Your task to perform on an android device: turn on location history Image 0: 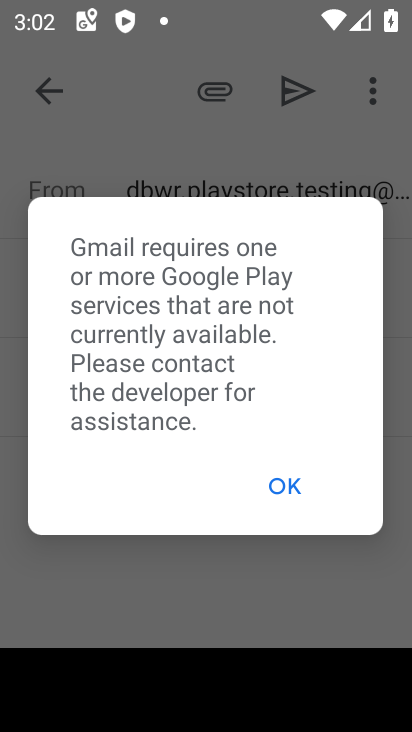
Step 0: click (289, 478)
Your task to perform on an android device: turn on location history Image 1: 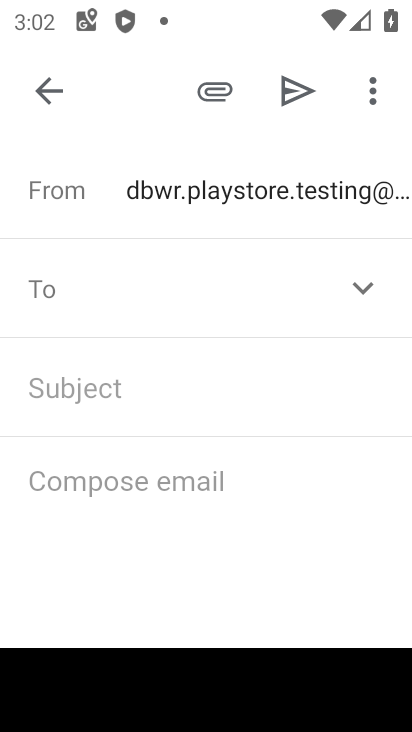
Step 1: press back button
Your task to perform on an android device: turn on location history Image 2: 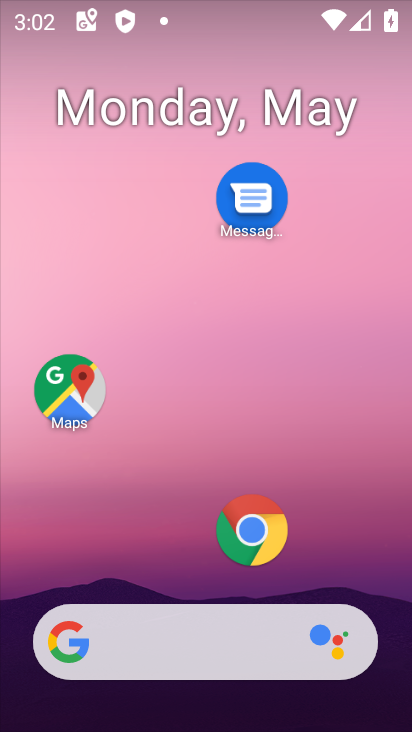
Step 2: drag from (142, 517) to (247, 51)
Your task to perform on an android device: turn on location history Image 3: 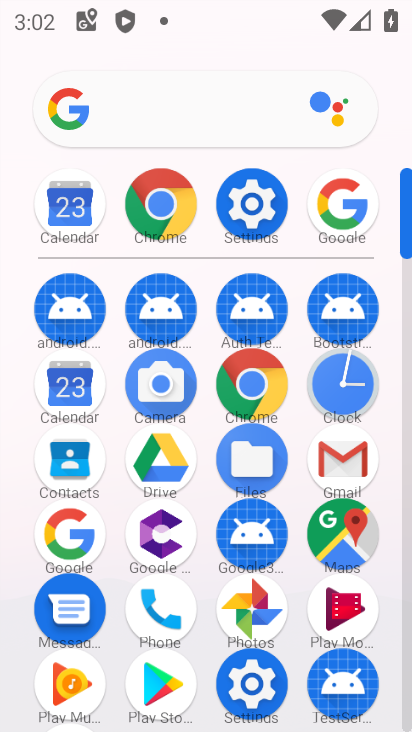
Step 3: click (274, 202)
Your task to perform on an android device: turn on location history Image 4: 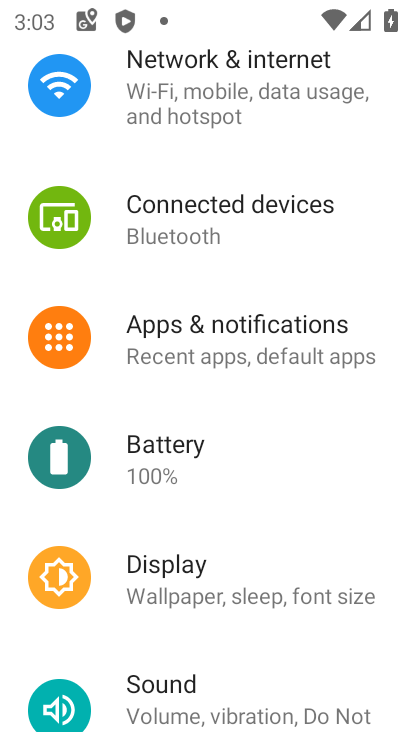
Step 4: drag from (196, 625) to (267, 192)
Your task to perform on an android device: turn on location history Image 5: 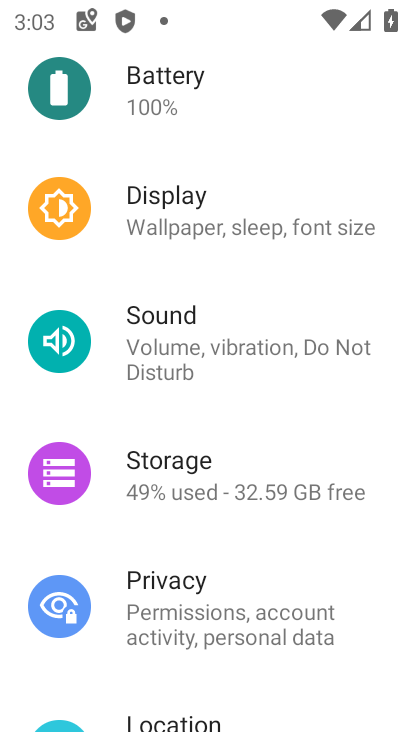
Step 5: click (152, 698)
Your task to perform on an android device: turn on location history Image 6: 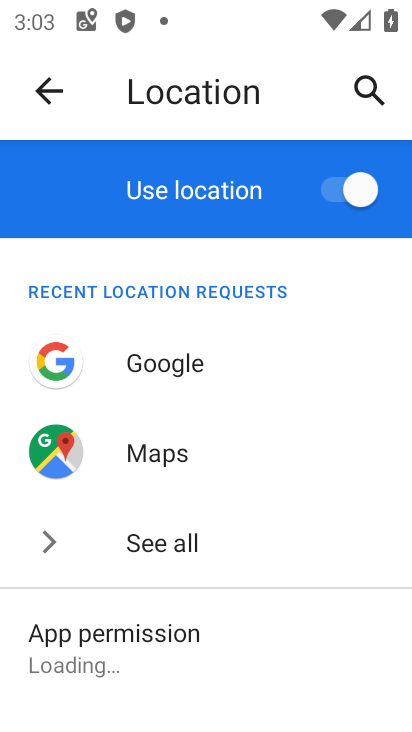
Step 6: drag from (125, 673) to (214, 220)
Your task to perform on an android device: turn on location history Image 7: 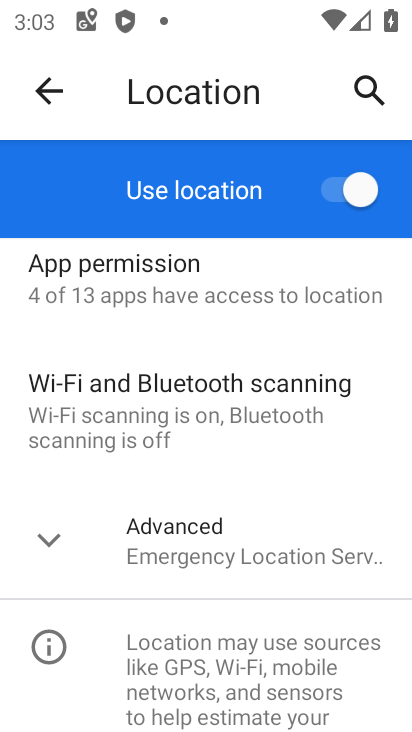
Step 7: click (206, 541)
Your task to perform on an android device: turn on location history Image 8: 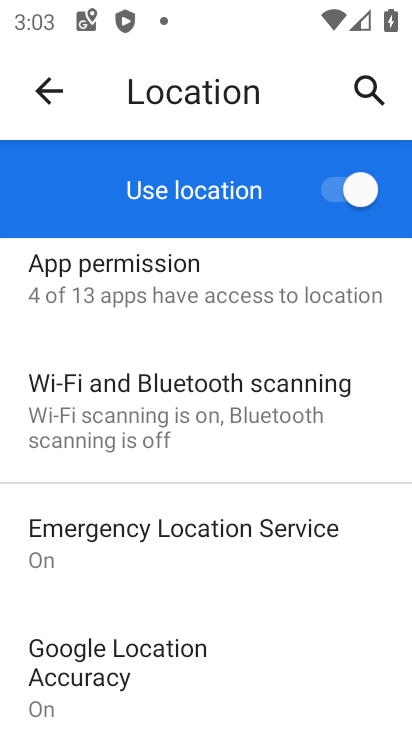
Step 8: drag from (168, 572) to (219, 214)
Your task to perform on an android device: turn on location history Image 9: 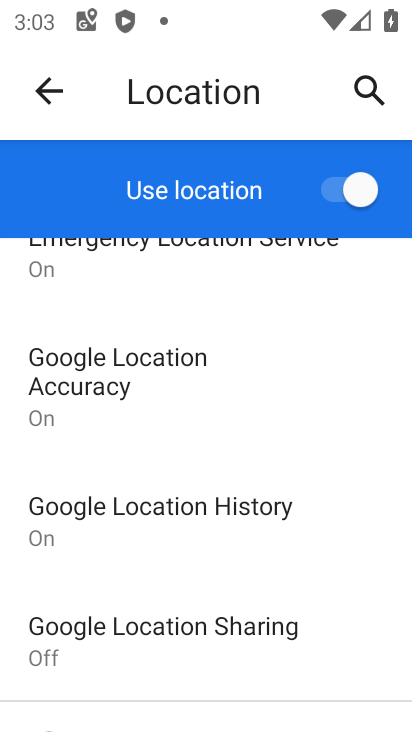
Step 9: click (145, 516)
Your task to perform on an android device: turn on location history Image 10: 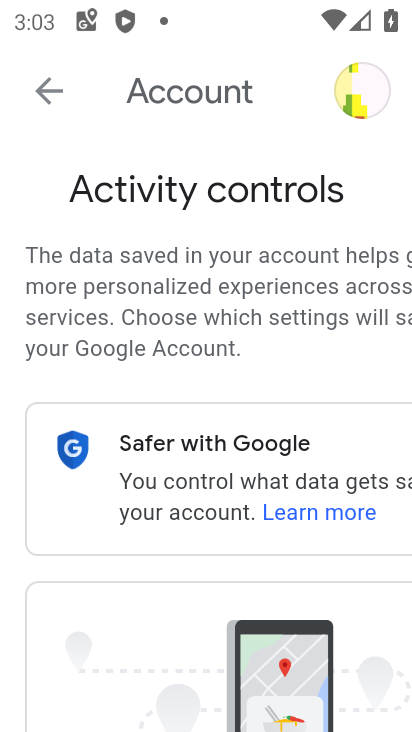
Step 10: task complete